Your task to perform on an android device: turn on wifi Image 0: 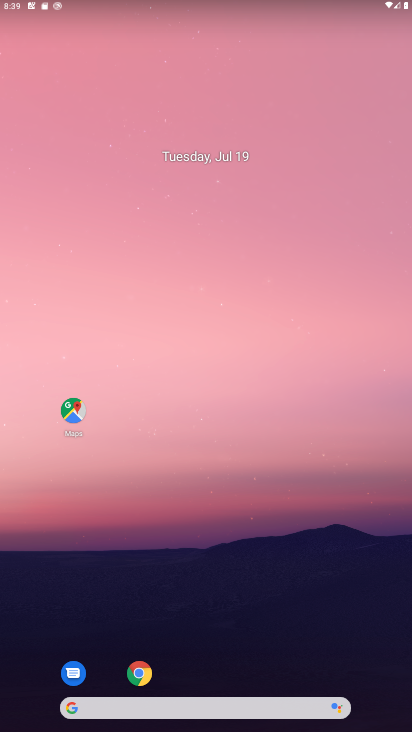
Step 0: drag from (375, 656) to (336, 164)
Your task to perform on an android device: turn on wifi Image 1: 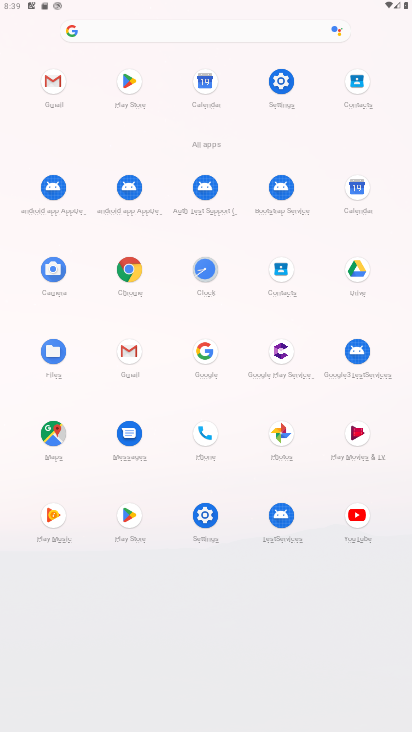
Step 1: click (205, 515)
Your task to perform on an android device: turn on wifi Image 2: 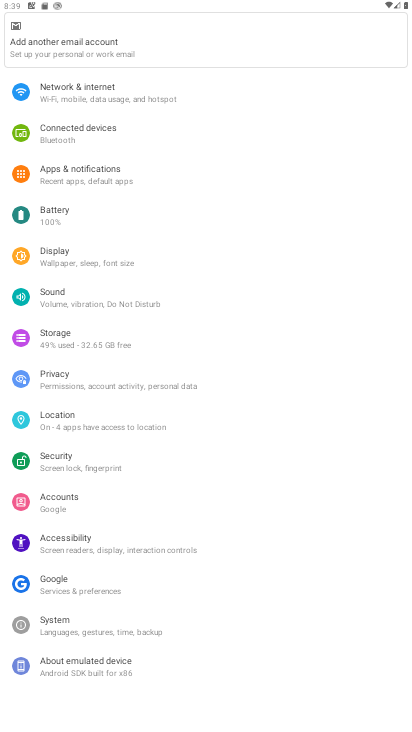
Step 2: click (72, 87)
Your task to perform on an android device: turn on wifi Image 3: 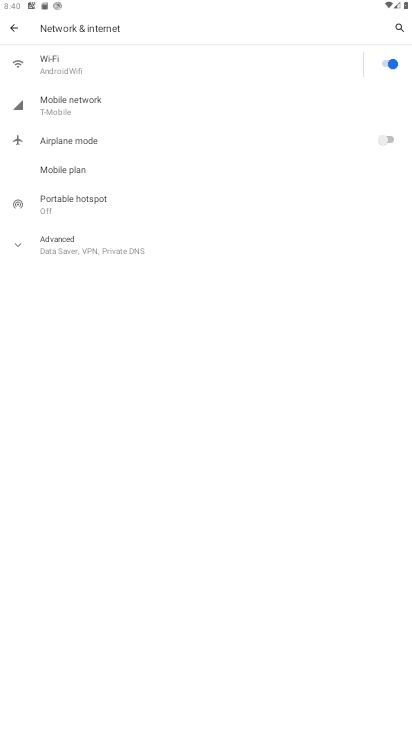
Step 3: task complete